Your task to perform on an android device: empty trash in google photos Image 0: 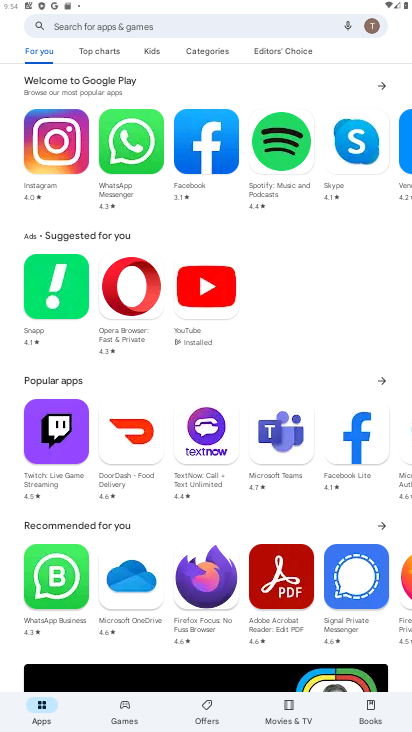
Step 0: press home button
Your task to perform on an android device: empty trash in google photos Image 1: 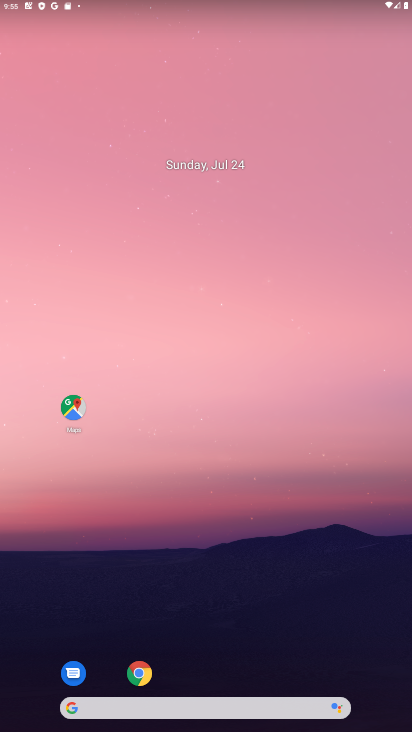
Step 1: drag from (22, 686) to (376, 22)
Your task to perform on an android device: empty trash in google photos Image 2: 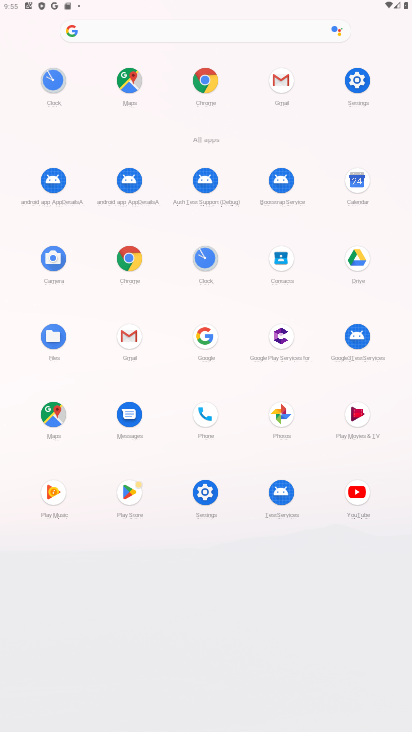
Step 2: click (281, 418)
Your task to perform on an android device: empty trash in google photos Image 3: 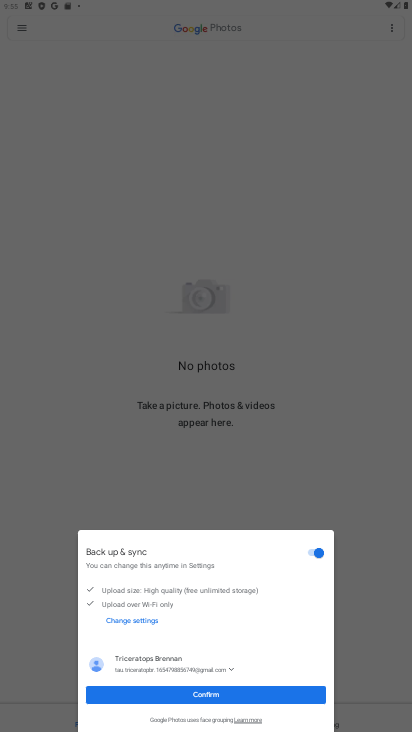
Step 3: click (205, 699)
Your task to perform on an android device: empty trash in google photos Image 4: 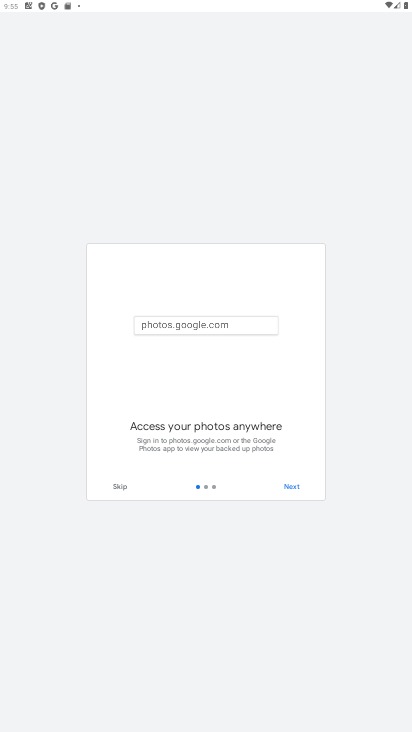
Step 4: click (291, 483)
Your task to perform on an android device: empty trash in google photos Image 5: 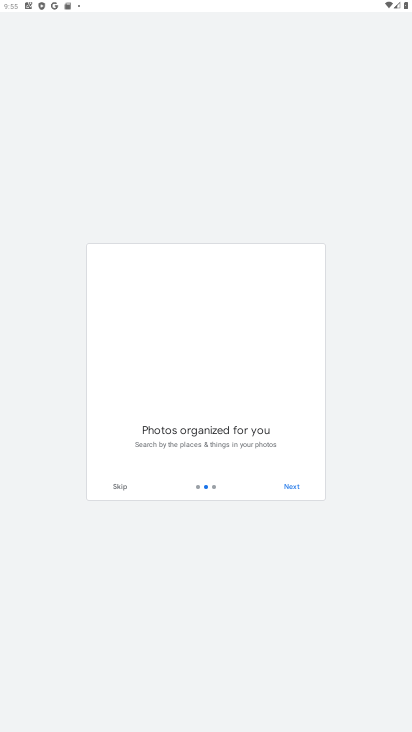
Step 5: click (294, 489)
Your task to perform on an android device: empty trash in google photos Image 6: 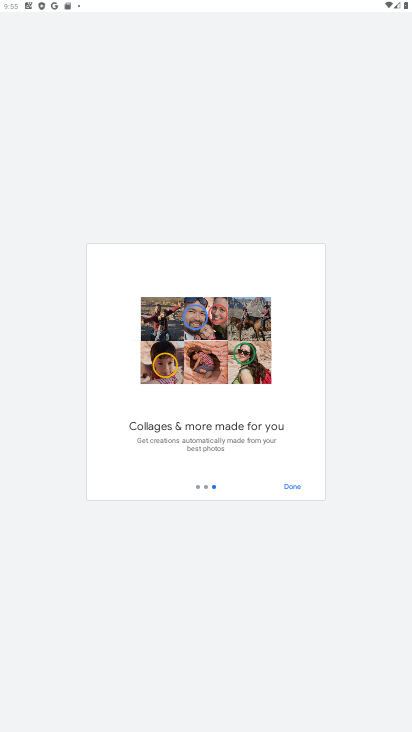
Step 6: click (294, 468)
Your task to perform on an android device: empty trash in google photos Image 7: 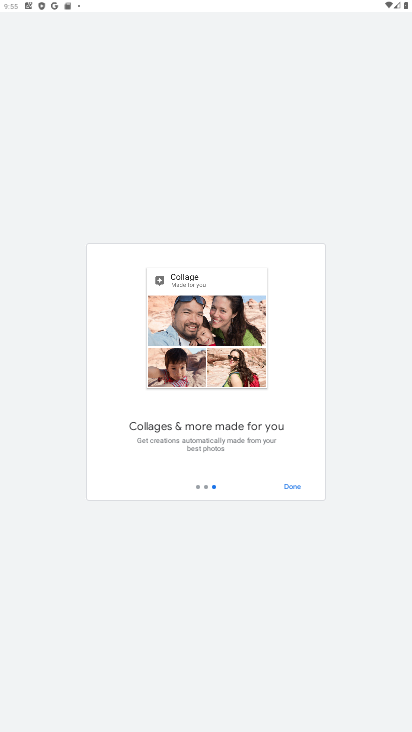
Step 7: click (289, 487)
Your task to perform on an android device: empty trash in google photos Image 8: 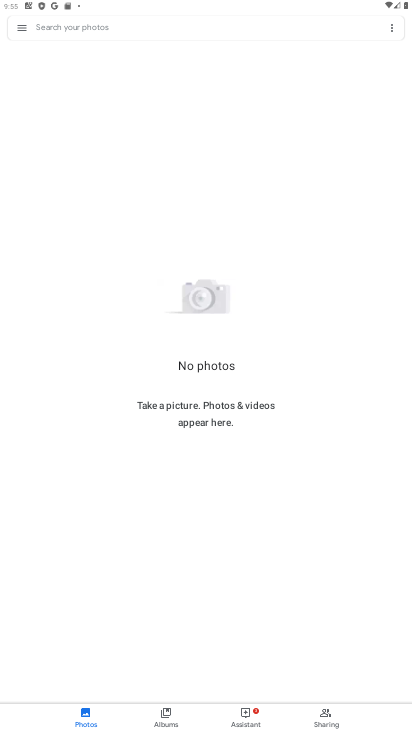
Step 8: click (26, 28)
Your task to perform on an android device: empty trash in google photos Image 9: 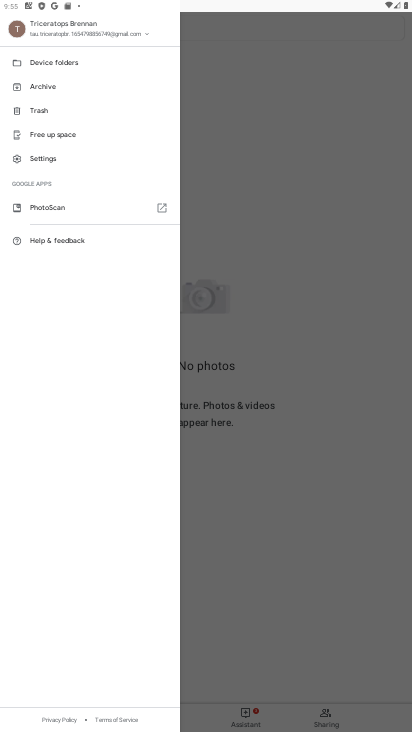
Step 9: click (45, 112)
Your task to perform on an android device: empty trash in google photos Image 10: 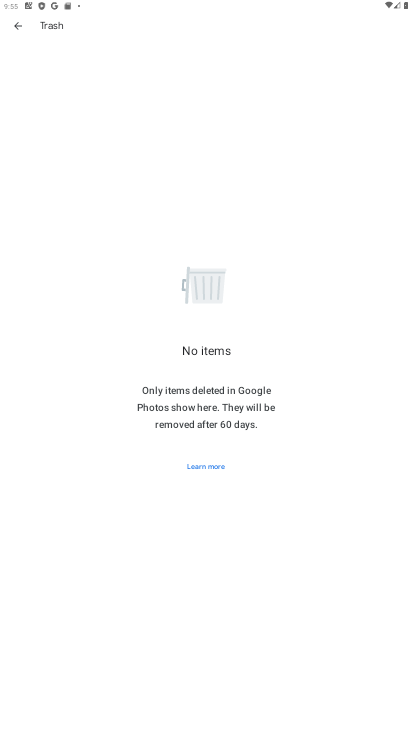
Step 10: task complete